Your task to perform on an android device: allow cookies in the chrome app Image 0: 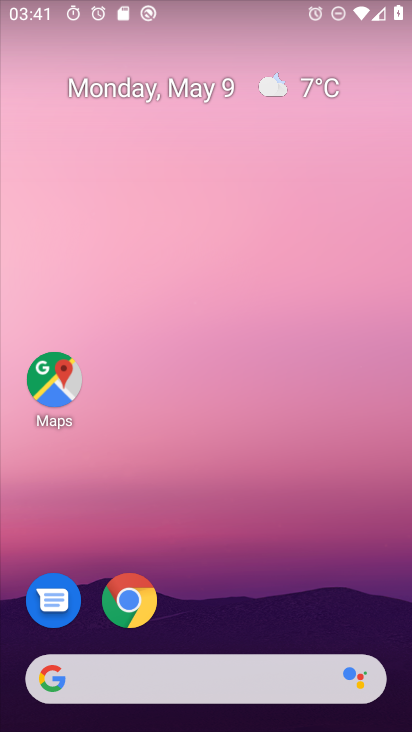
Step 0: click (138, 604)
Your task to perform on an android device: allow cookies in the chrome app Image 1: 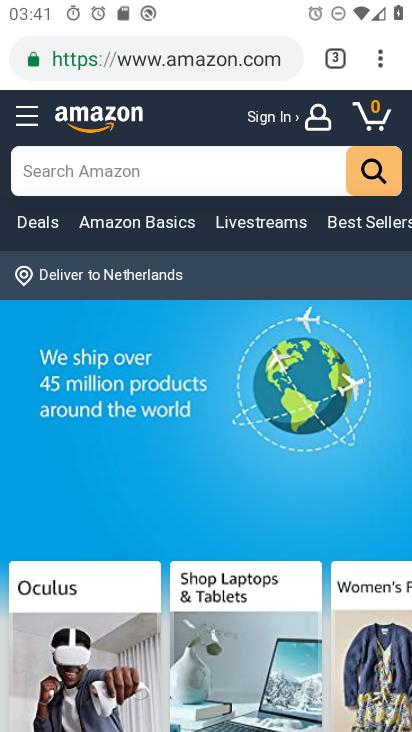
Step 1: click (381, 63)
Your task to perform on an android device: allow cookies in the chrome app Image 2: 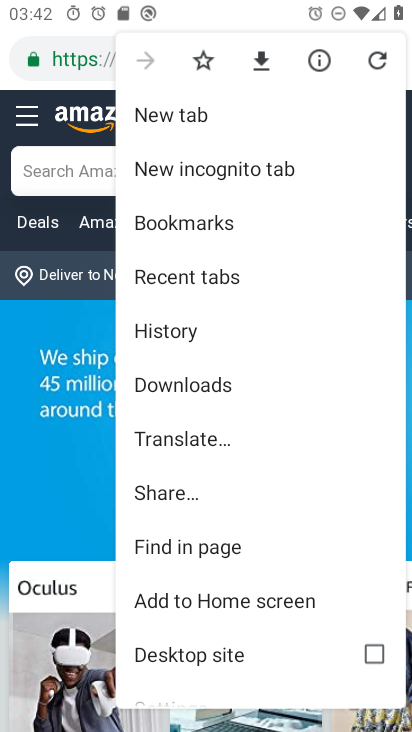
Step 2: drag from (240, 614) to (204, 142)
Your task to perform on an android device: allow cookies in the chrome app Image 3: 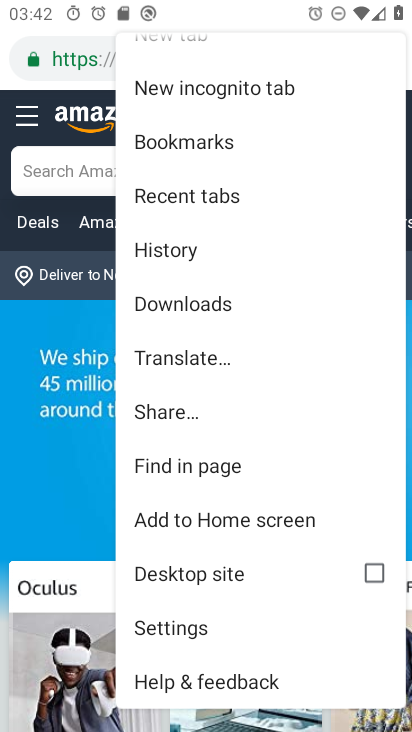
Step 3: click (216, 623)
Your task to perform on an android device: allow cookies in the chrome app Image 4: 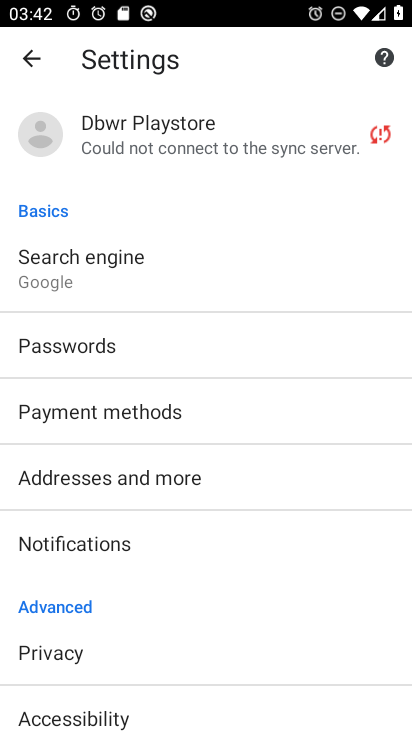
Step 4: drag from (149, 599) to (209, 222)
Your task to perform on an android device: allow cookies in the chrome app Image 5: 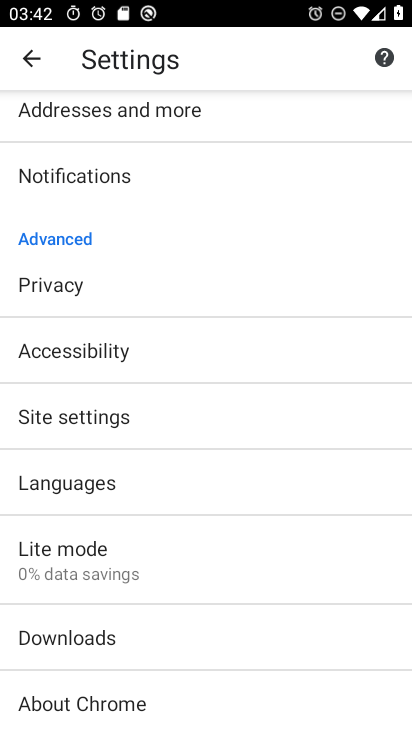
Step 5: click (82, 427)
Your task to perform on an android device: allow cookies in the chrome app Image 6: 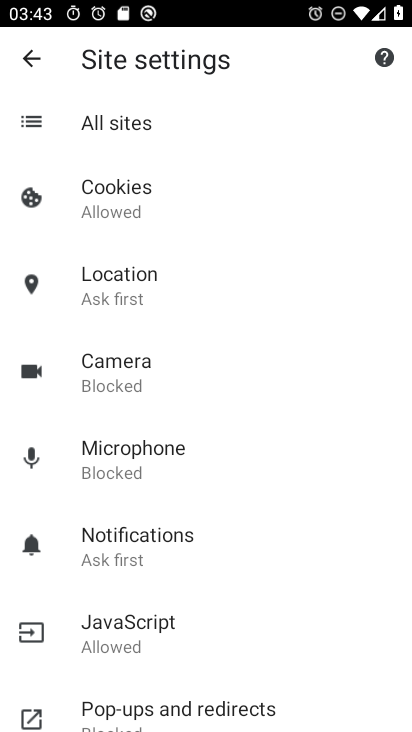
Step 6: click (141, 184)
Your task to perform on an android device: allow cookies in the chrome app Image 7: 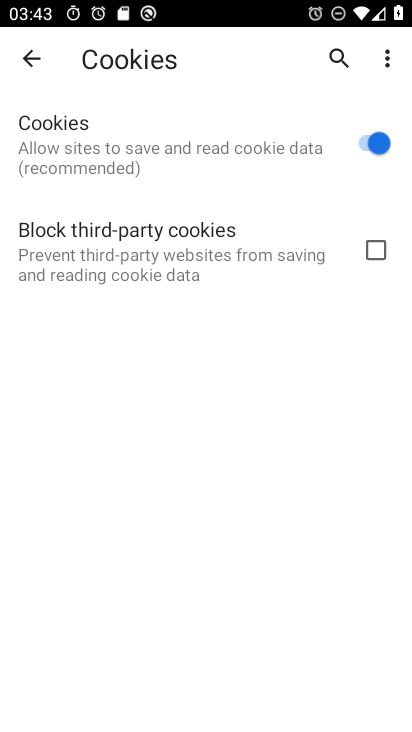
Step 7: task complete